Your task to perform on an android device: turn off sleep mode Image 0: 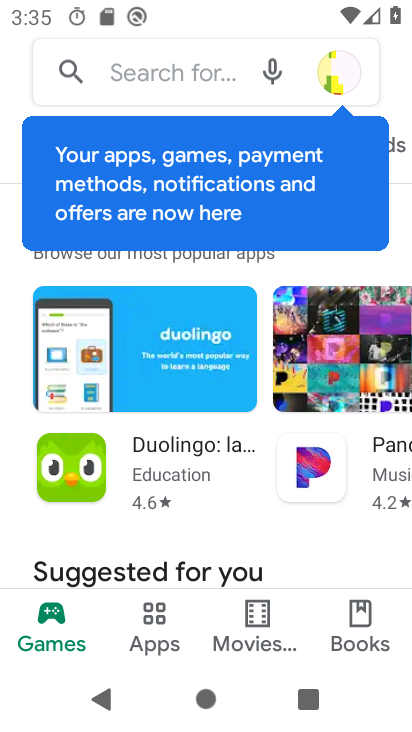
Step 0: press back button
Your task to perform on an android device: turn off sleep mode Image 1: 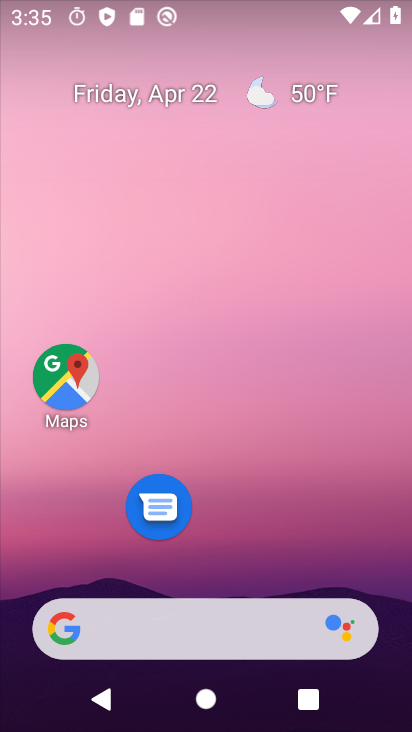
Step 1: drag from (214, 564) to (289, 9)
Your task to perform on an android device: turn off sleep mode Image 2: 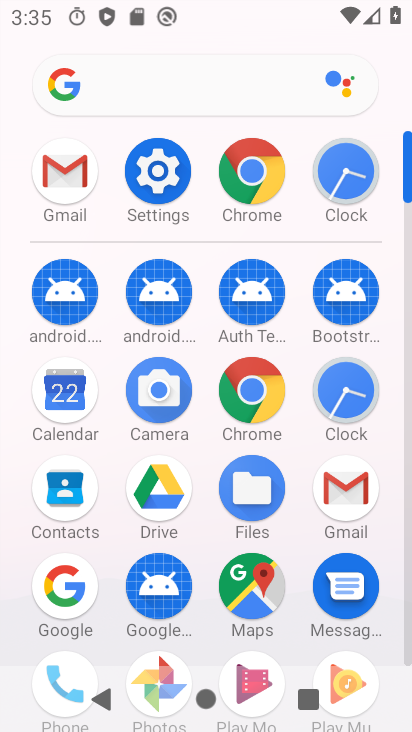
Step 2: click (155, 157)
Your task to perform on an android device: turn off sleep mode Image 3: 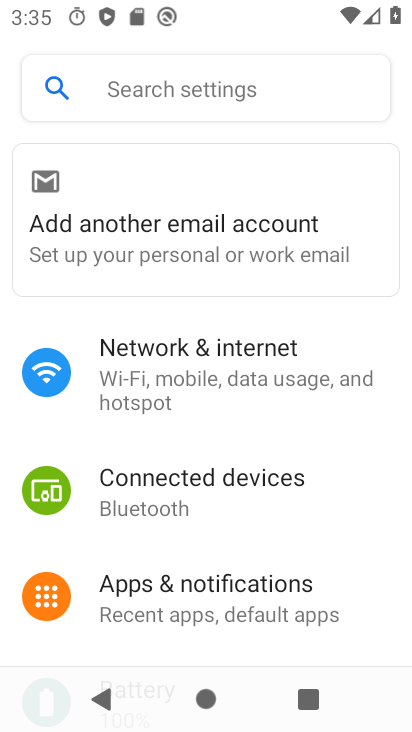
Step 3: click (169, 92)
Your task to perform on an android device: turn off sleep mode Image 4: 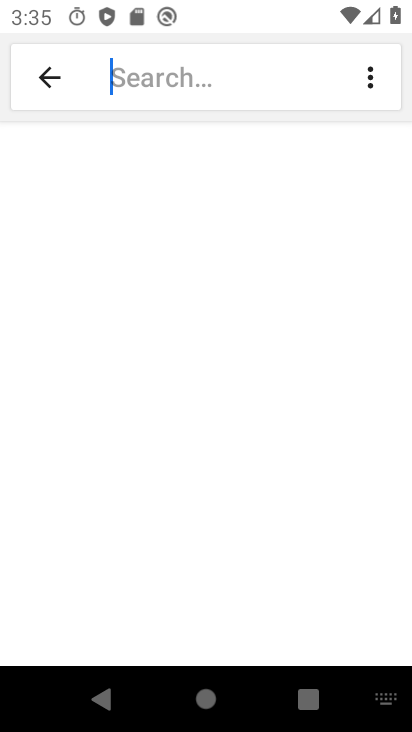
Step 4: type "sleep mode"
Your task to perform on an android device: turn off sleep mode Image 5: 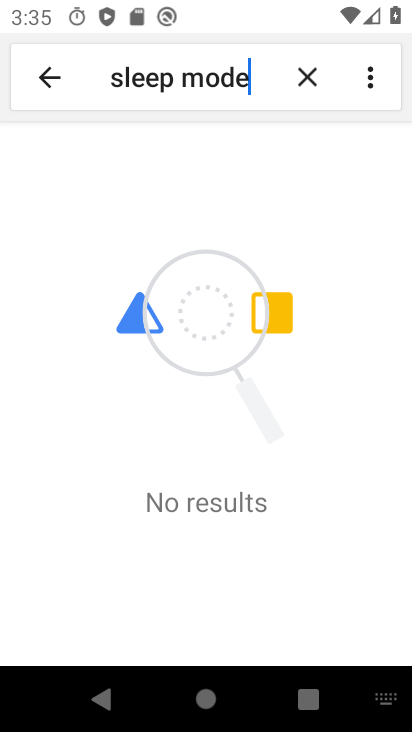
Step 5: task complete